Your task to perform on an android device: turn notification dots off Image 0: 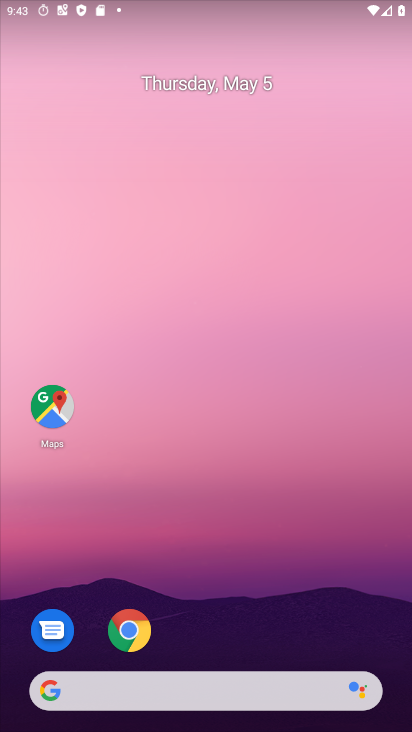
Step 0: drag from (147, 420) to (71, 141)
Your task to perform on an android device: turn notification dots off Image 1: 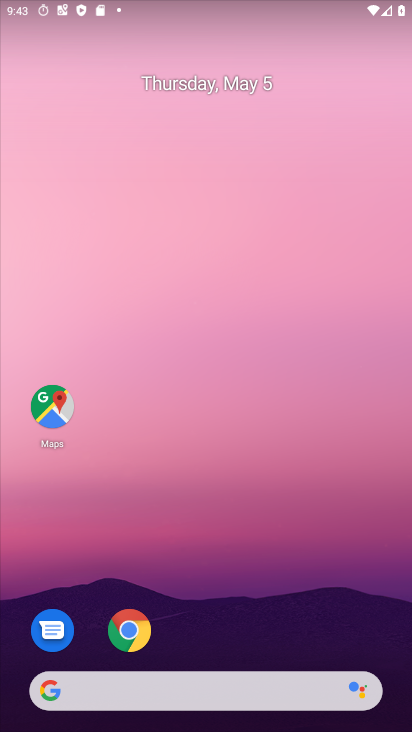
Step 1: drag from (211, 634) to (26, 74)
Your task to perform on an android device: turn notification dots off Image 2: 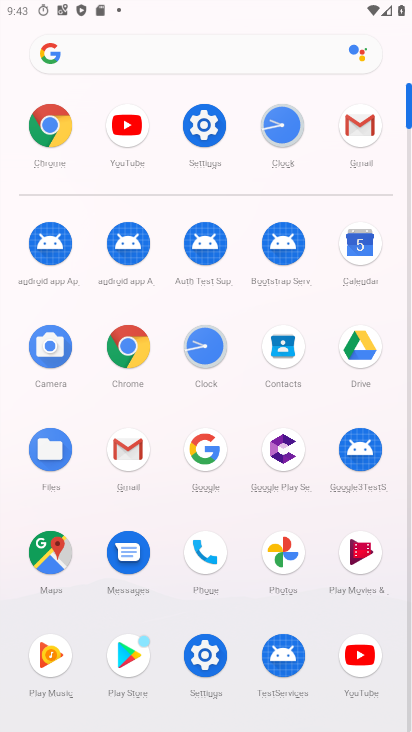
Step 2: click (215, 124)
Your task to perform on an android device: turn notification dots off Image 3: 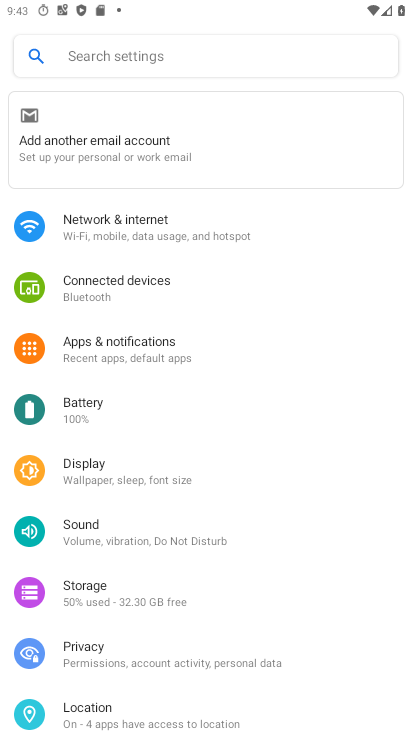
Step 3: click (115, 353)
Your task to perform on an android device: turn notification dots off Image 4: 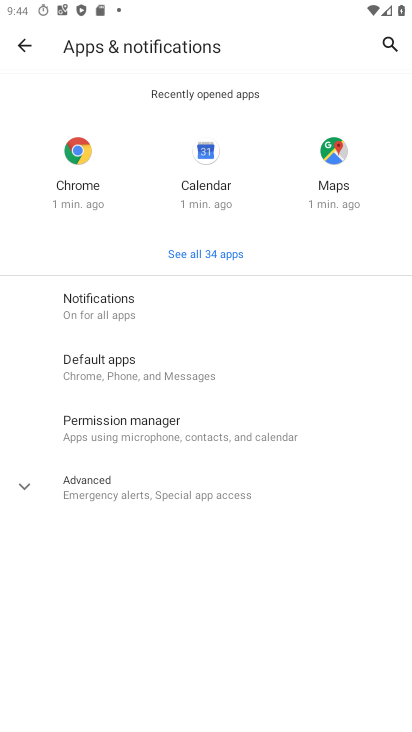
Step 4: click (74, 298)
Your task to perform on an android device: turn notification dots off Image 5: 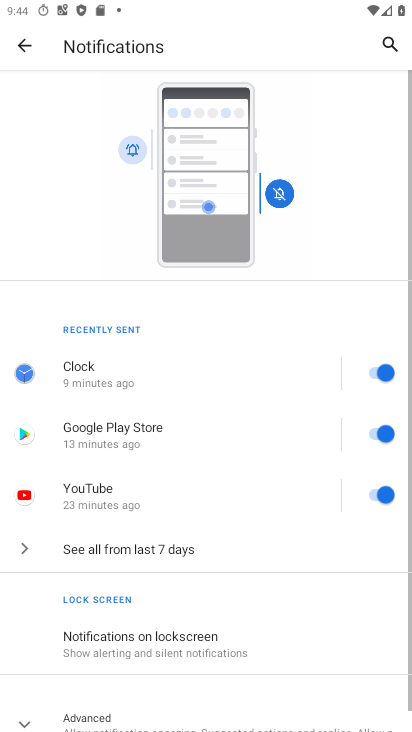
Step 5: drag from (139, 682) to (131, 271)
Your task to perform on an android device: turn notification dots off Image 6: 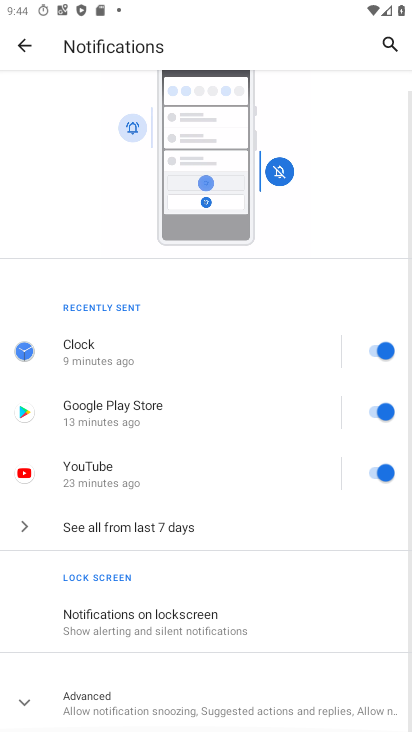
Step 6: click (84, 708)
Your task to perform on an android device: turn notification dots off Image 7: 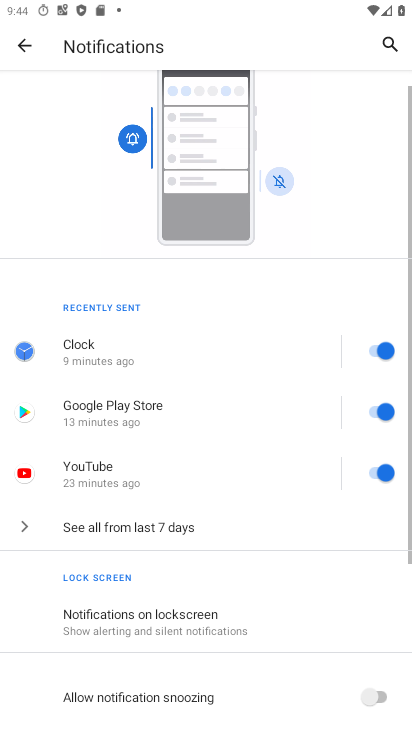
Step 7: drag from (147, 673) to (175, 349)
Your task to perform on an android device: turn notification dots off Image 8: 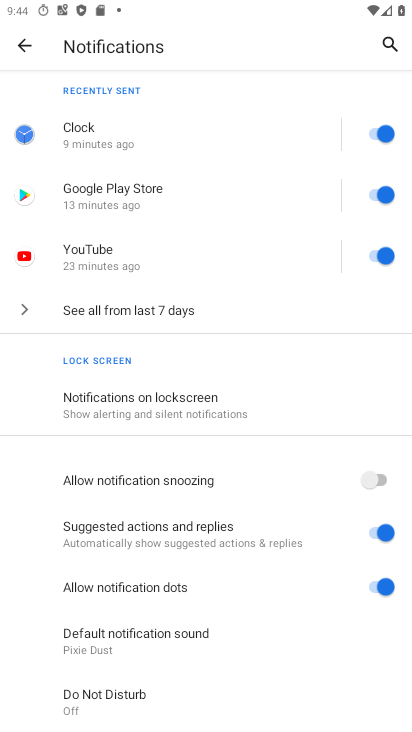
Step 8: click (389, 589)
Your task to perform on an android device: turn notification dots off Image 9: 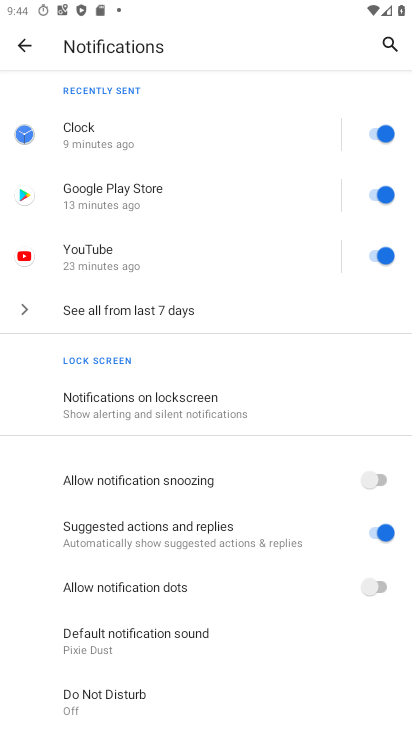
Step 9: task complete